Your task to perform on an android device: Go to sound settings Image 0: 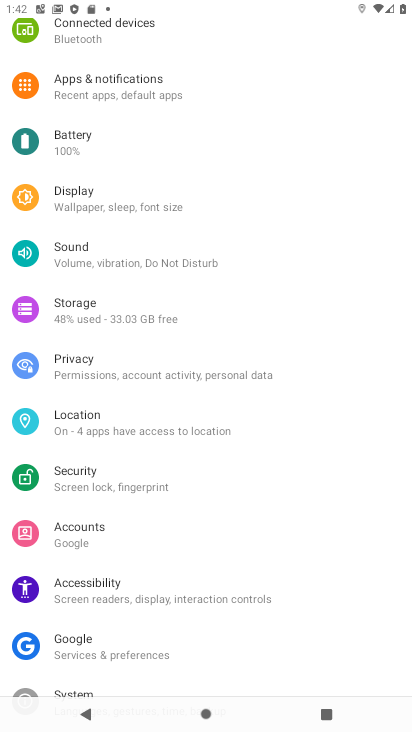
Step 0: press home button
Your task to perform on an android device: Go to sound settings Image 1: 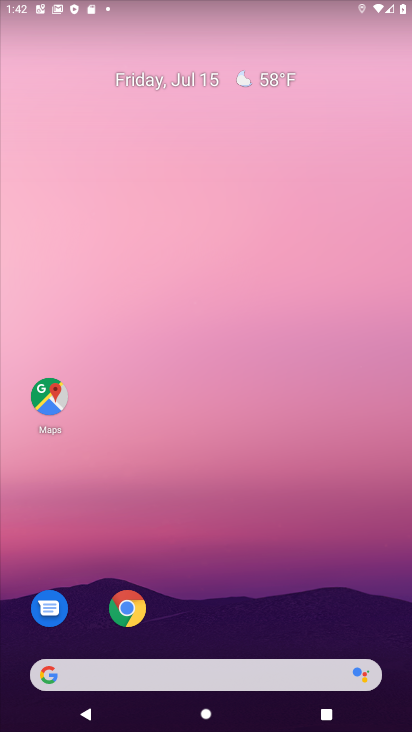
Step 1: drag from (319, 565) to (349, 38)
Your task to perform on an android device: Go to sound settings Image 2: 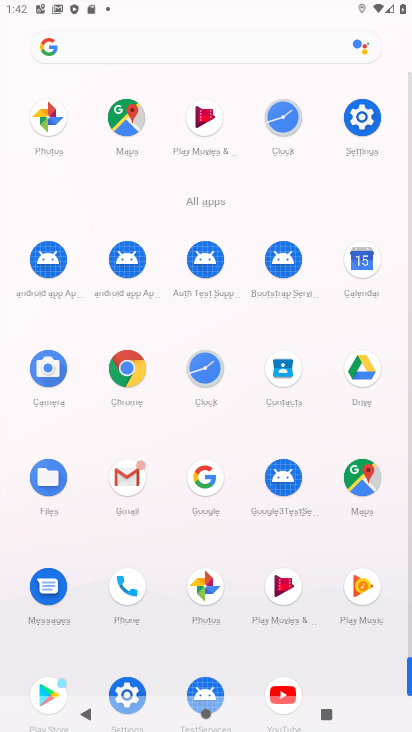
Step 2: click (129, 690)
Your task to perform on an android device: Go to sound settings Image 3: 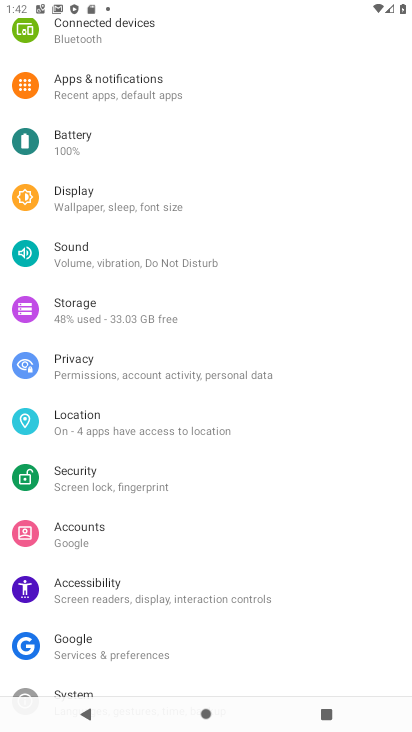
Step 3: click (49, 247)
Your task to perform on an android device: Go to sound settings Image 4: 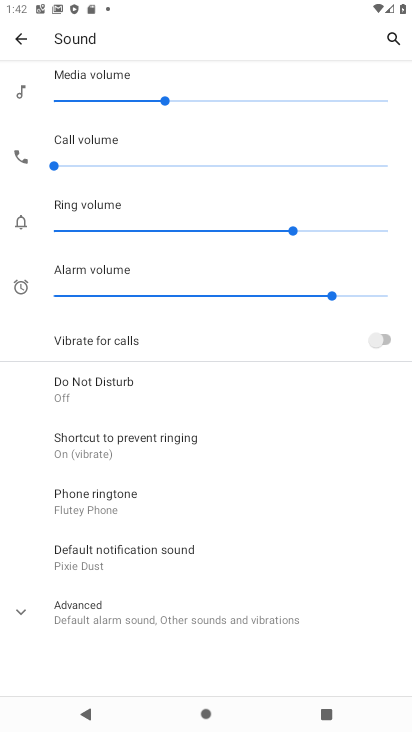
Step 4: task complete